Your task to perform on an android device: Search for "asus rog" on walmart, select the first entry, add it to the cart, then select checkout. Image 0: 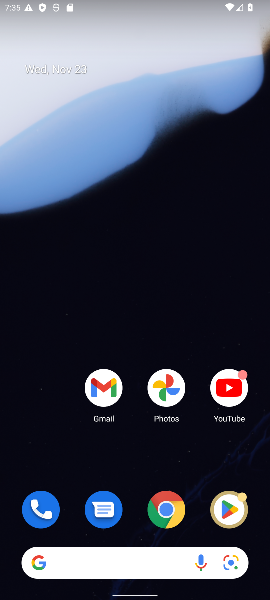
Step 0: click (169, 511)
Your task to perform on an android device: Search for "asus rog" on walmart, select the first entry, add it to the cart, then select checkout. Image 1: 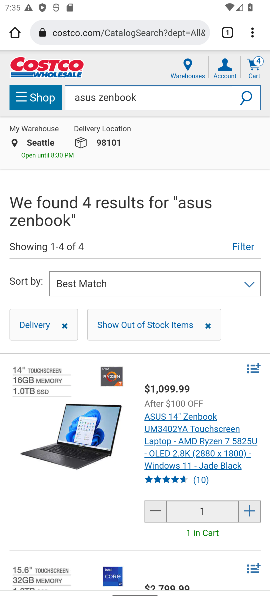
Step 1: click (109, 32)
Your task to perform on an android device: Search for "asus rog" on walmart, select the first entry, add it to the cart, then select checkout. Image 2: 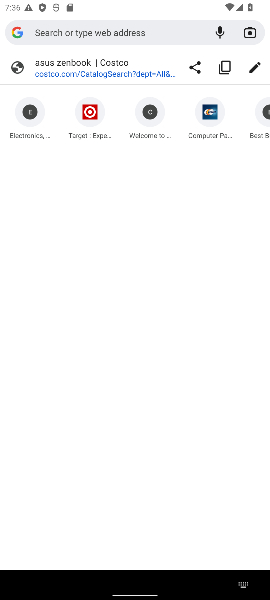
Step 2: type "walmart"
Your task to perform on an android device: Search for "asus rog" on walmart, select the first entry, add it to the cart, then select checkout. Image 3: 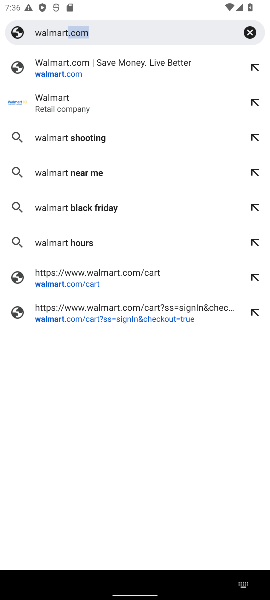
Step 3: click (184, 66)
Your task to perform on an android device: Search for "asus rog" on walmart, select the first entry, add it to the cart, then select checkout. Image 4: 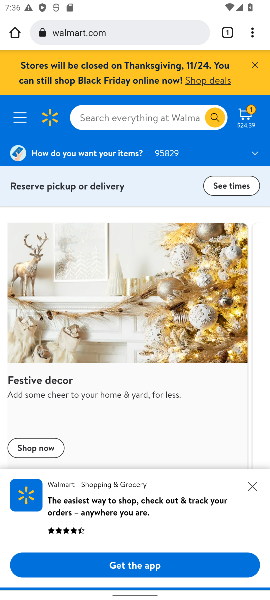
Step 4: click (157, 120)
Your task to perform on an android device: Search for "asus rog" on walmart, select the first entry, add it to the cart, then select checkout. Image 5: 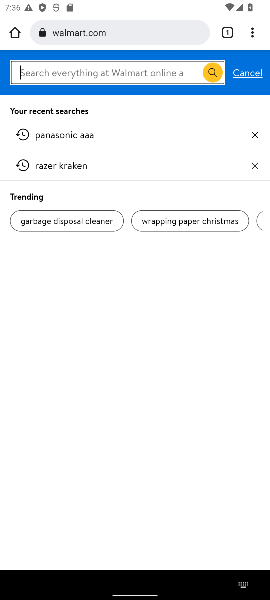
Step 5: type "asus rog"
Your task to perform on an android device: Search for "asus rog" on walmart, select the first entry, add it to the cart, then select checkout. Image 6: 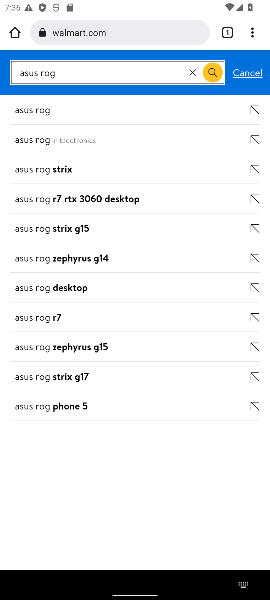
Step 6: click (92, 114)
Your task to perform on an android device: Search for "asus rog" on walmart, select the first entry, add it to the cart, then select checkout. Image 7: 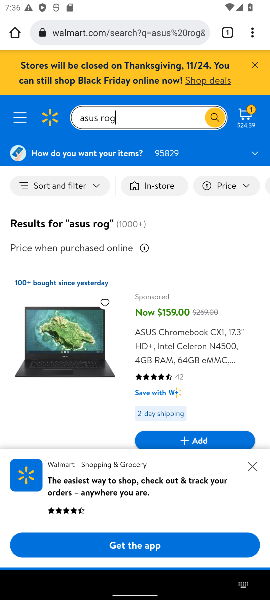
Step 7: click (199, 440)
Your task to perform on an android device: Search for "asus rog" on walmart, select the first entry, add it to the cart, then select checkout. Image 8: 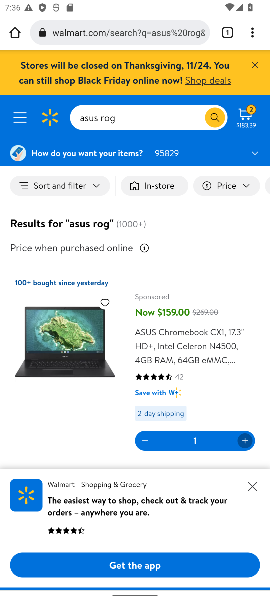
Step 8: click (246, 128)
Your task to perform on an android device: Search for "asus rog" on walmart, select the first entry, add it to the cart, then select checkout. Image 9: 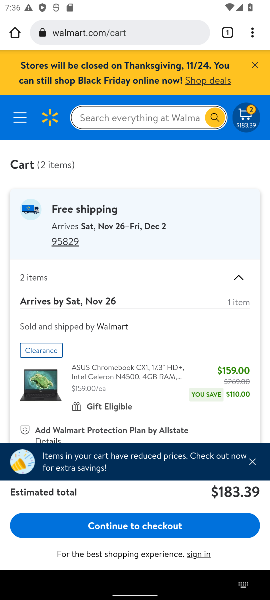
Step 9: drag from (123, 421) to (116, 190)
Your task to perform on an android device: Search for "asus rog" on walmart, select the first entry, add it to the cart, then select checkout. Image 10: 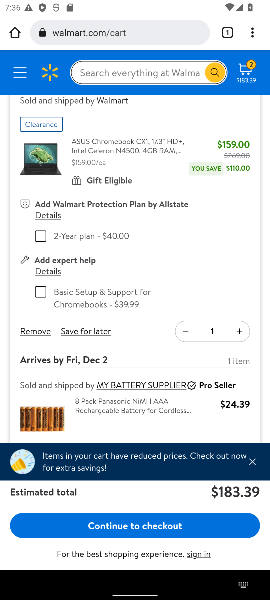
Step 10: click (173, 536)
Your task to perform on an android device: Search for "asus rog" on walmart, select the first entry, add it to the cart, then select checkout. Image 11: 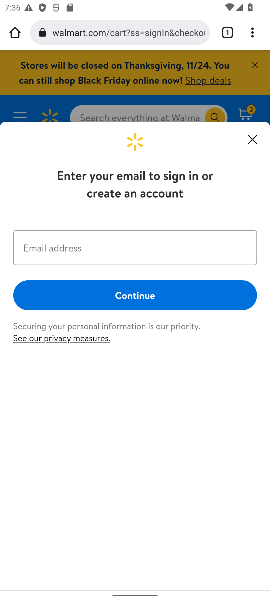
Step 11: task complete